Your task to perform on an android device: Open the map Image 0: 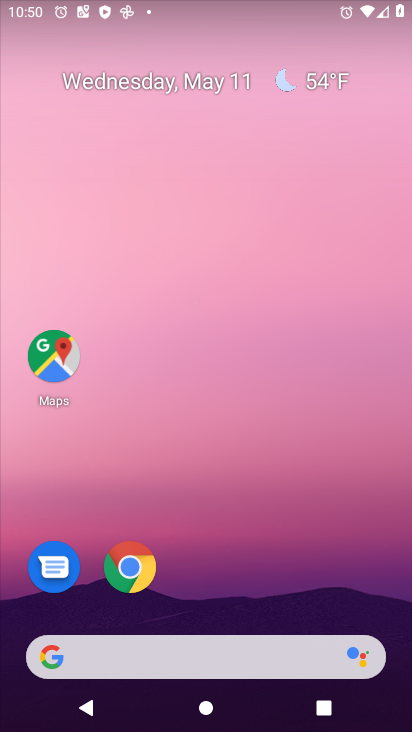
Step 0: drag from (217, 608) to (63, 0)
Your task to perform on an android device: Open the map Image 1: 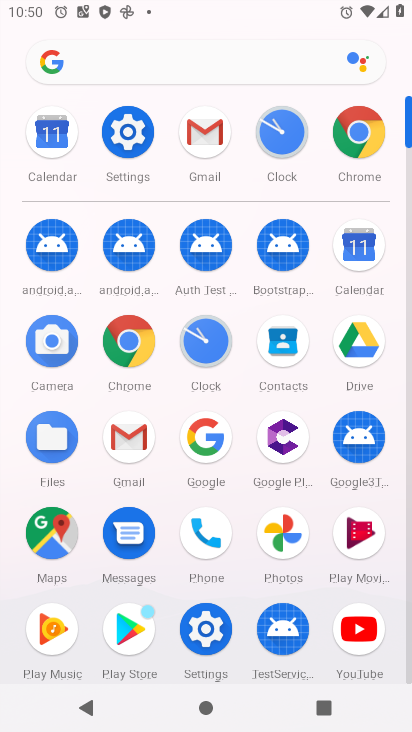
Step 1: click (49, 528)
Your task to perform on an android device: Open the map Image 2: 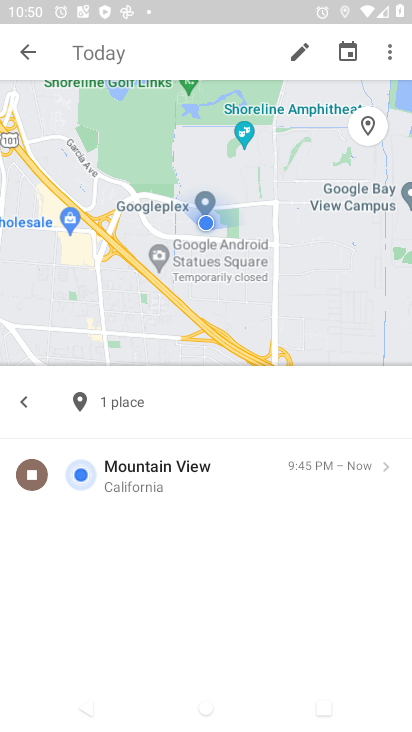
Step 2: click (33, 56)
Your task to perform on an android device: Open the map Image 3: 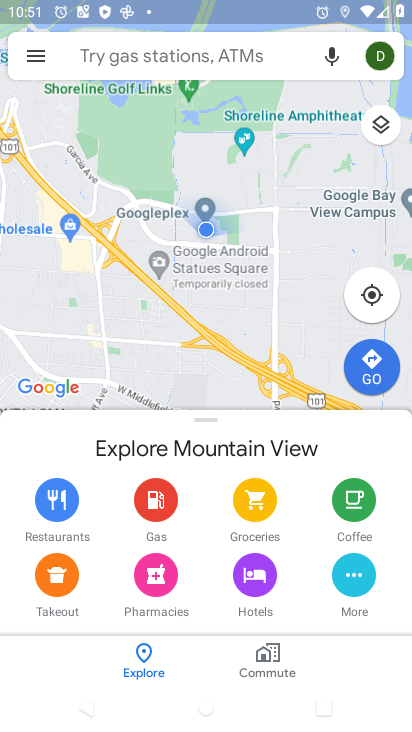
Step 3: task complete